Your task to perform on an android device: Open ESPN.com Image 0: 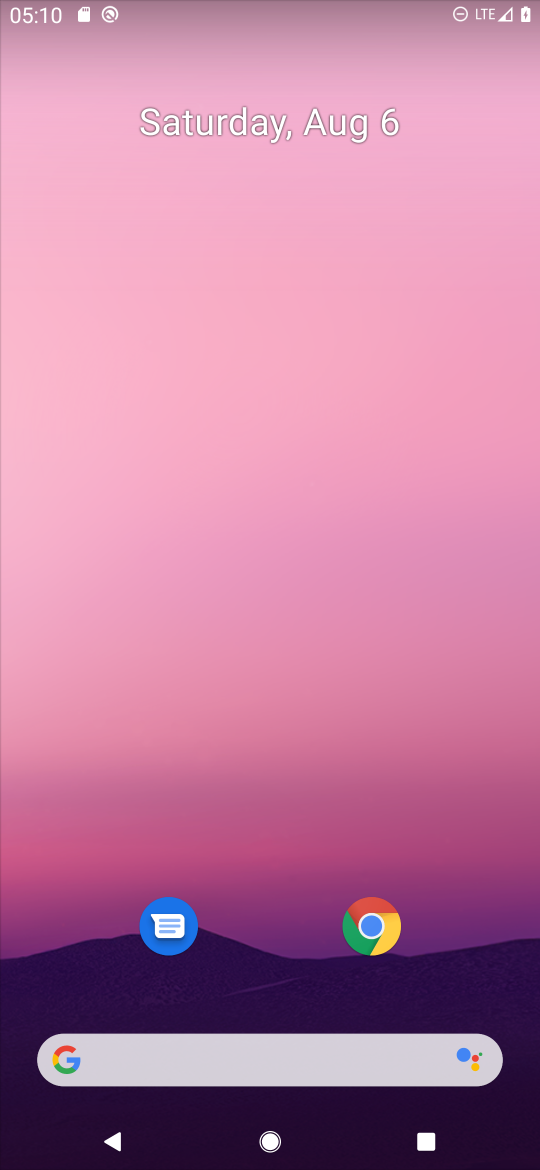
Step 0: click (352, 945)
Your task to perform on an android device: Open ESPN.com Image 1: 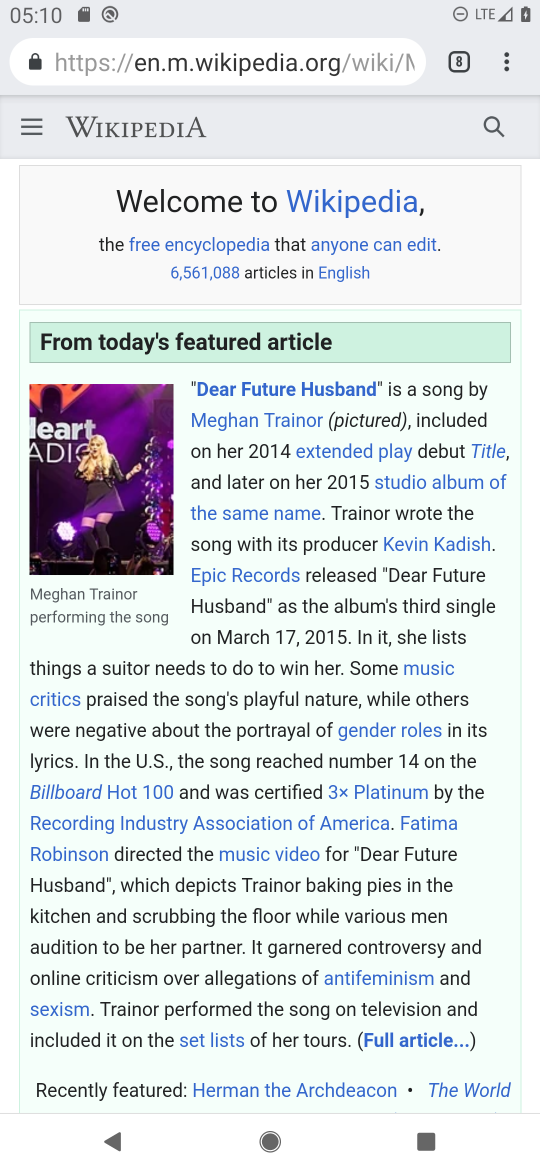
Step 1: click (447, 60)
Your task to perform on an android device: Open ESPN.com Image 2: 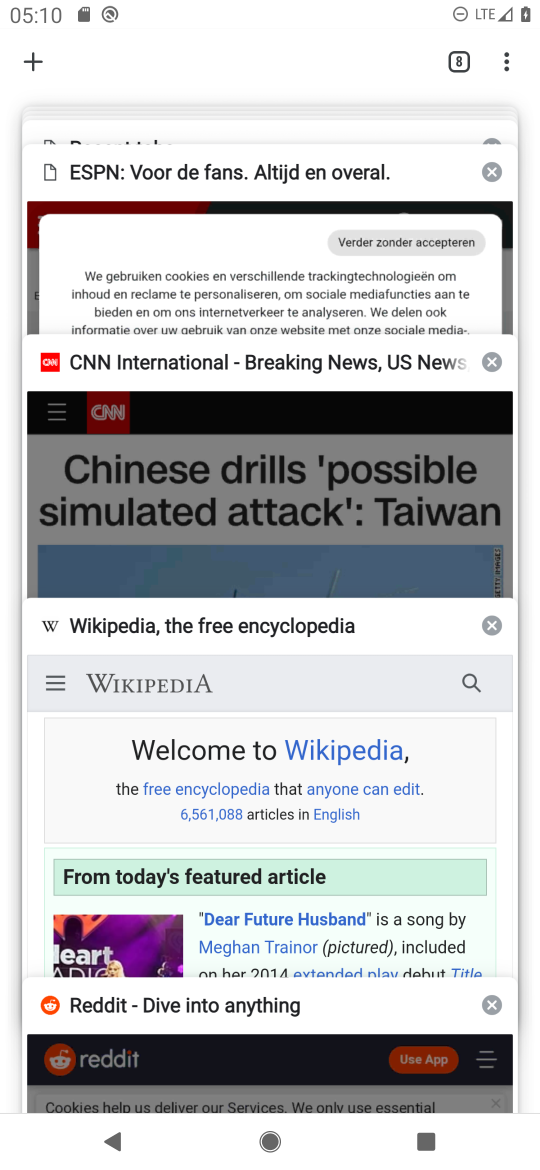
Step 2: click (40, 65)
Your task to perform on an android device: Open ESPN.com Image 3: 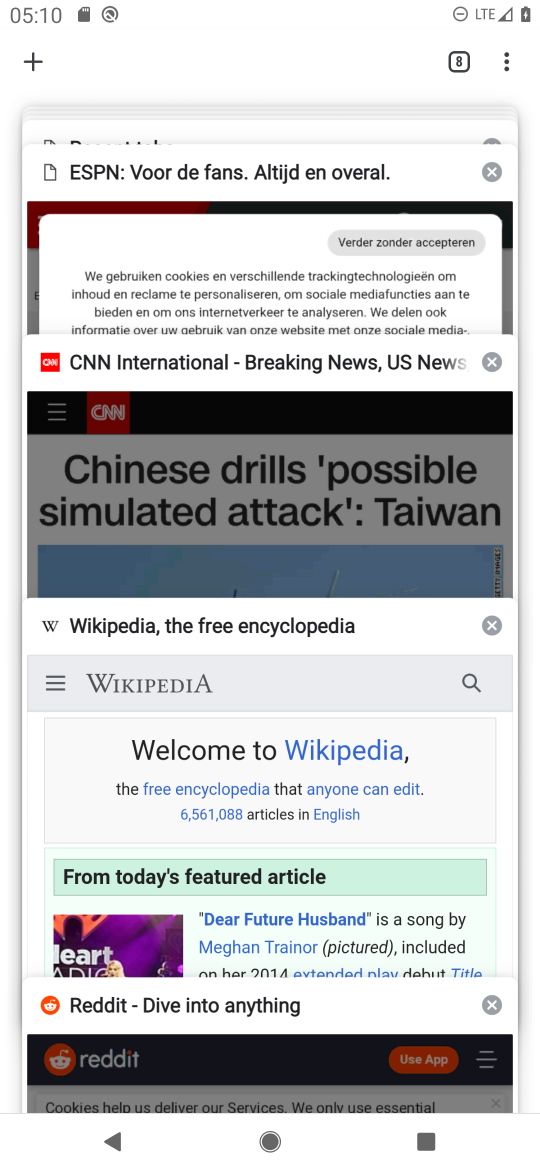
Step 3: click (34, 70)
Your task to perform on an android device: Open ESPN.com Image 4: 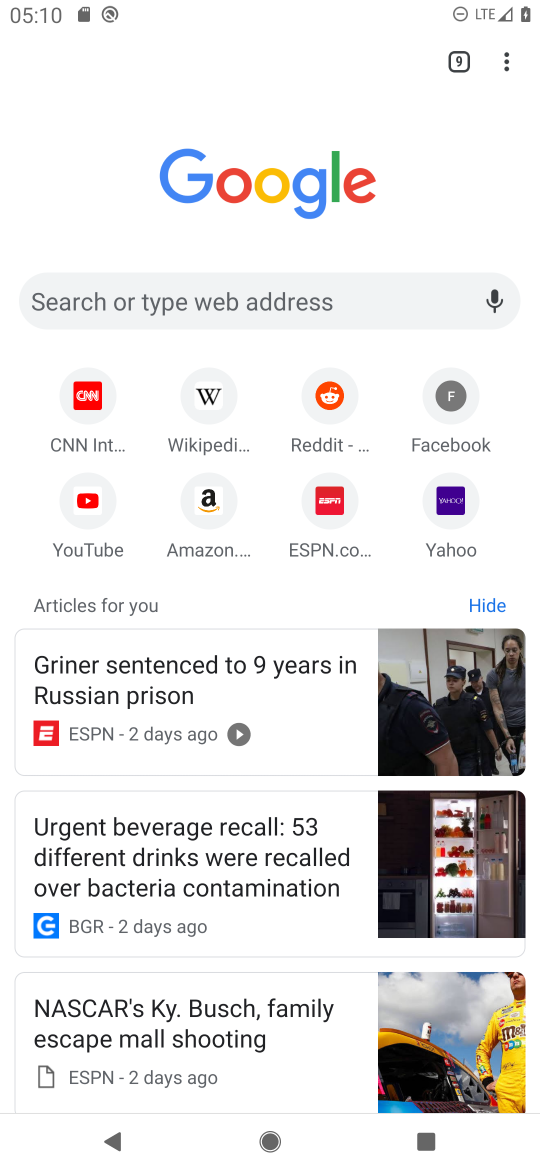
Step 4: click (332, 528)
Your task to perform on an android device: Open ESPN.com Image 5: 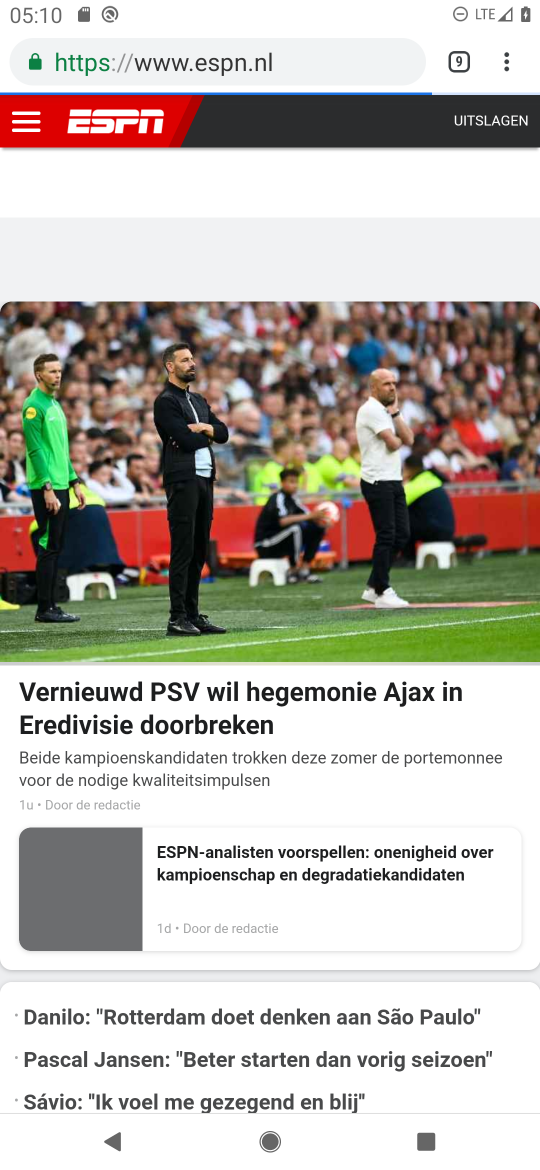
Step 5: task complete